Your task to perform on an android device: install app "Indeed Job Search" Image 0: 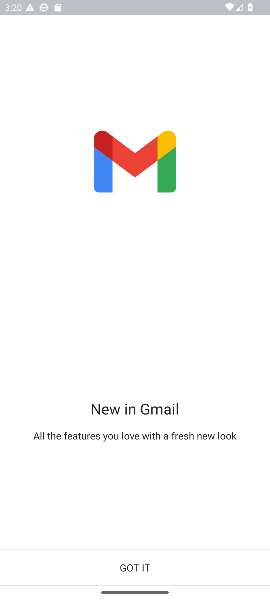
Step 0: press home button
Your task to perform on an android device: install app "Indeed Job Search" Image 1: 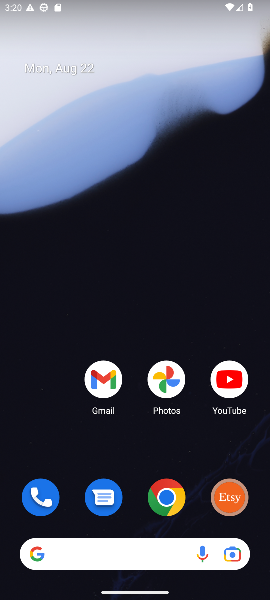
Step 1: drag from (133, 451) to (153, 101)
Your task to perform on an android device: install app "Indeed Job Search" Image 2: 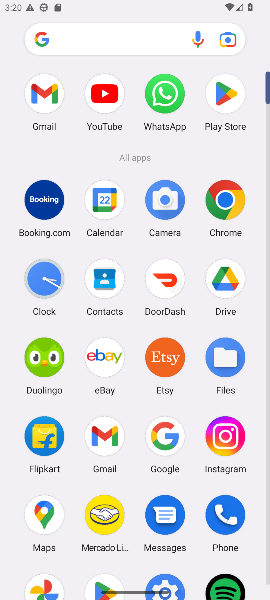
Step 2: click (234, 95)
Your task to perform on an android device: install app "Indeed Job Search" Image 3: 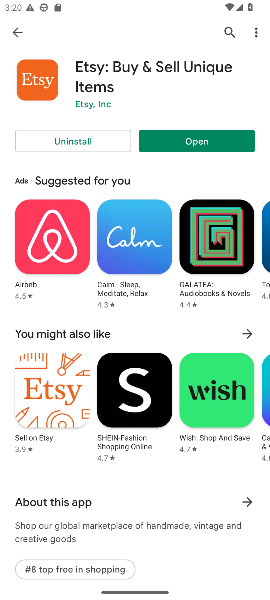
Step 3: click (230, 30)
Your task to perform on an android device: install app "Indeed Job Search" Image 4: 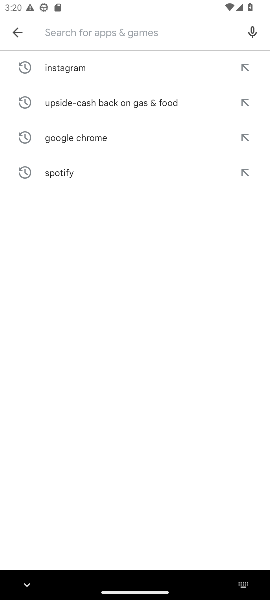
Step 4: type "Indeed Job Search"
Your task to perform on an android device: install app "Indeed Job Search" Image 5: 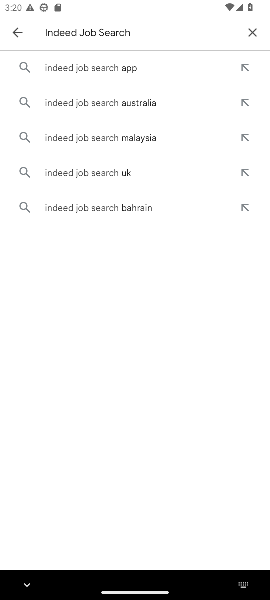
Step 5: click (75, 71)
Your task to perform on an android device: install app "Indeed Job Search" Image 6: 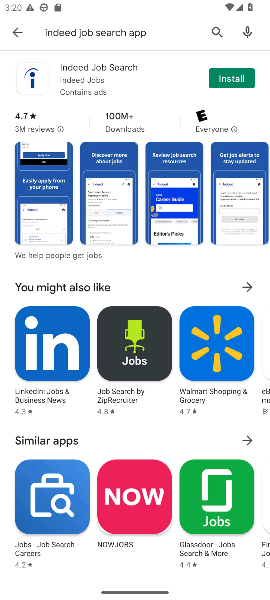
Step 6: click (248, 76)
Your task to perform on an android device: install app "Indeed Job Search" Image 7: 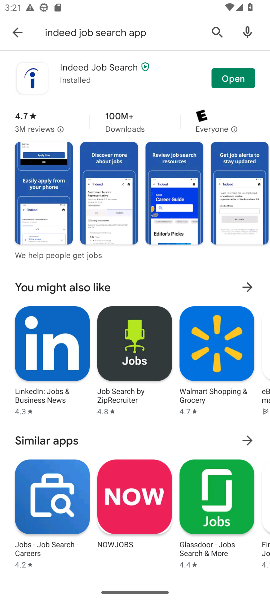
Step 7: task complete